Your task to perform on an android device: toggle sleep mode Image 0: 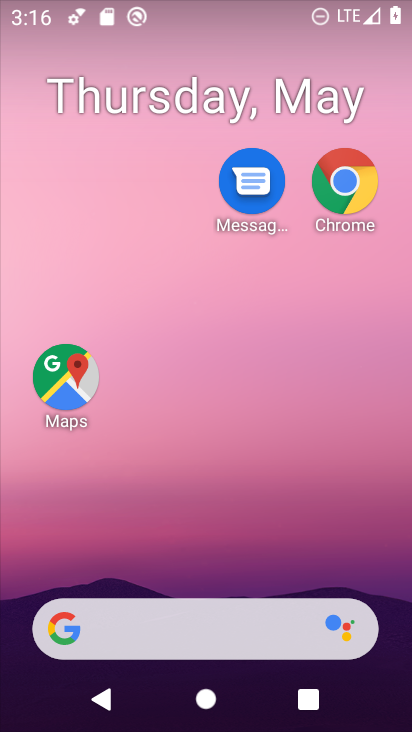
Step 0: drag from (140, 612) to (221, 42)
Your task to perform on an android device: toggle sleep mode Image 1: 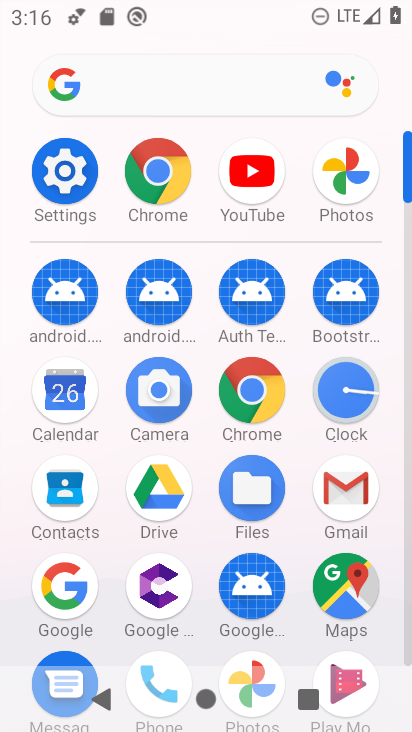
Step 1: click (80, 171)
Your task to perform on an android device: toggle sleep mode Image 2: 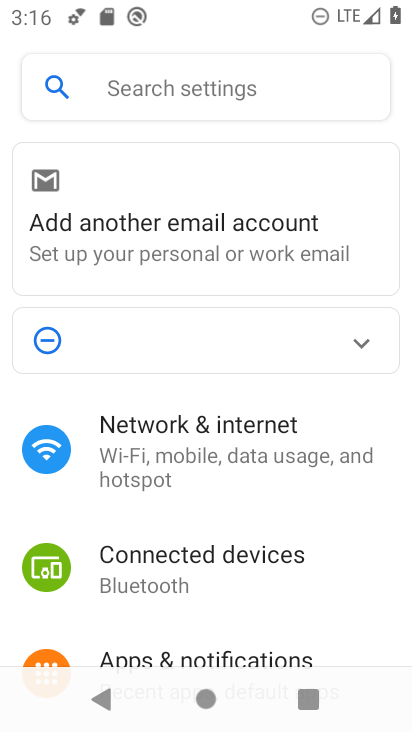
Step 2: drag from (317, 574) to (336, 228)
Your task to perform on an android device: toggle sleep mode Image 3: 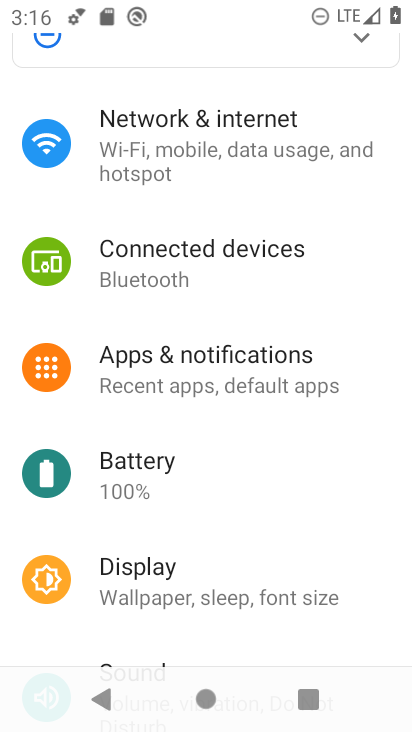
Step 3: click (309, 593)
Your task to perform on an android device: toggle sleep mode Image 4: 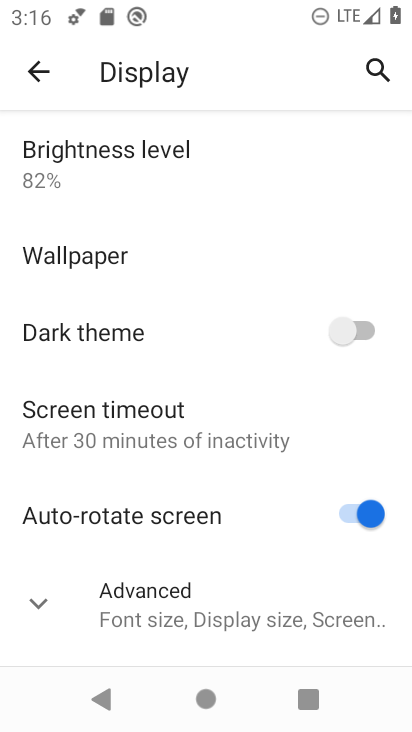
Step 4: task complete